Your task to perform on an android device: Search for "bose soundlink mini" on amazon, select the first entry, add it to the cart, then select checkout. Image 0: 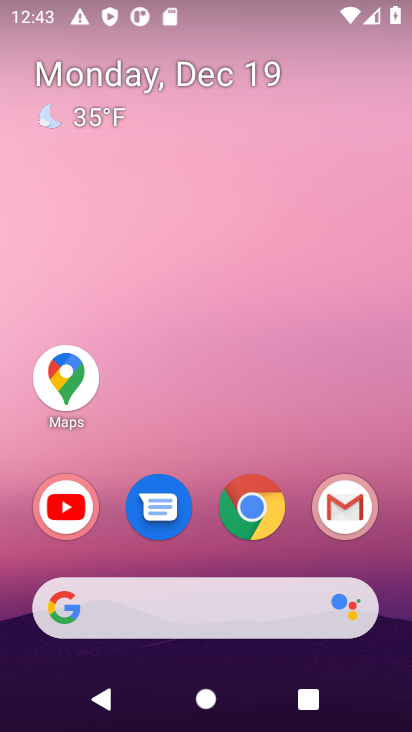
Step 0: click (254, 504)
Your task to perform on an android device: Search for "bose soundlink mini" on amazon, select the first entry, add it to the cart, then select checkout. Image 1: 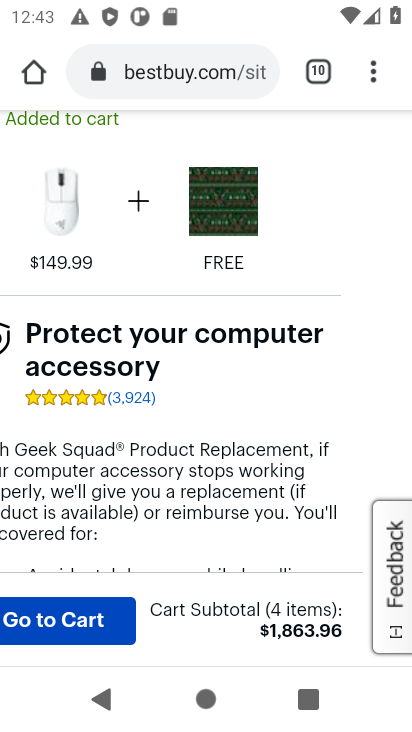
Step 1: click (178, 75)
Your task to perform on an android device: Search for "bose soundlink mini" on amazon, select the first entry, add it to the cart, then select checkout. Image 2: 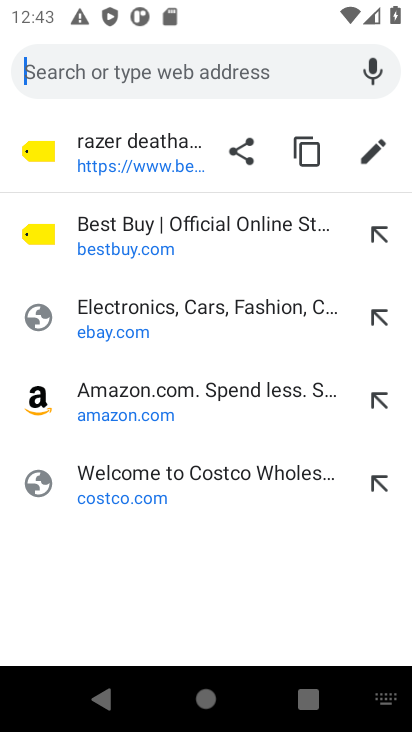
Step 2: click (106, 404)
Your task to perform on an android device: Search for "bose soundlink mini" on amazon, select the first entry, add it to the cart, then select checkout. Image 3: 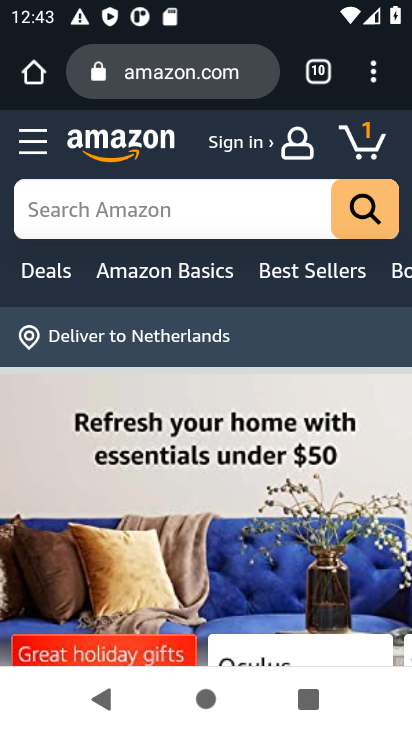
Step 3: click (128, 212)
Your task to perform on an android device: Search for "bose soundlink mini" on amazon, select the first entry, add it to the cart, then select checkout. Image 4: 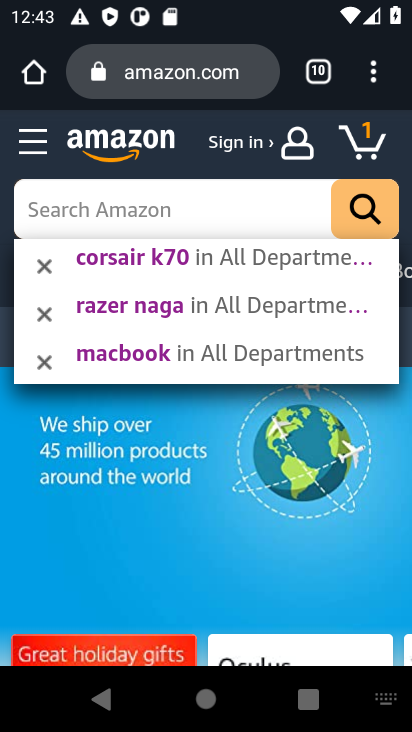
Step 4: type "bose soundlink mini"
Your task to perform on an android device: Search for "bose soundlink mini" on amazon, select the first entry, add it to the cart, then select checkout. Image 5: 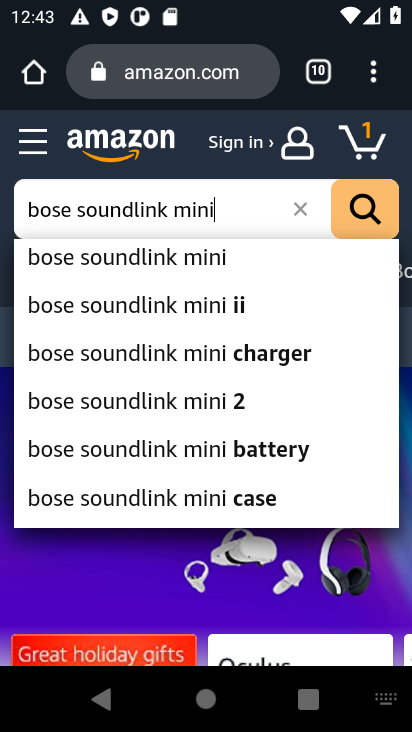
Step 5: click (142, 265)
Your task to perform on an android device: Search for "bose soundlink mini" on amazon, select the first entry, add it to the cart, then select checkout. Image 6: 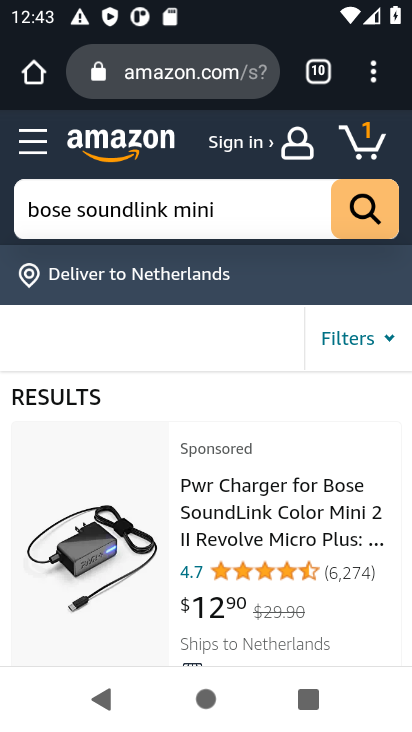
Step 6: click (273, 522)
Your task to perform on an android device: Search for "bose soundlink mini" on amazon, select the first entry, add it to the cart, then select checkout. Image 7: 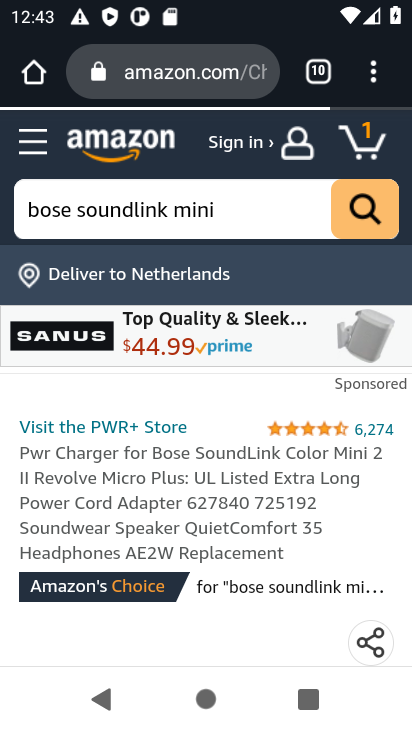
Step 7: drag from (266, 529) to (254, 196)
Your task to perform on an android device: Search for "bose soundlink mini" on amazon, select the first entry, add it to the cart, then select checkout. Image 8: 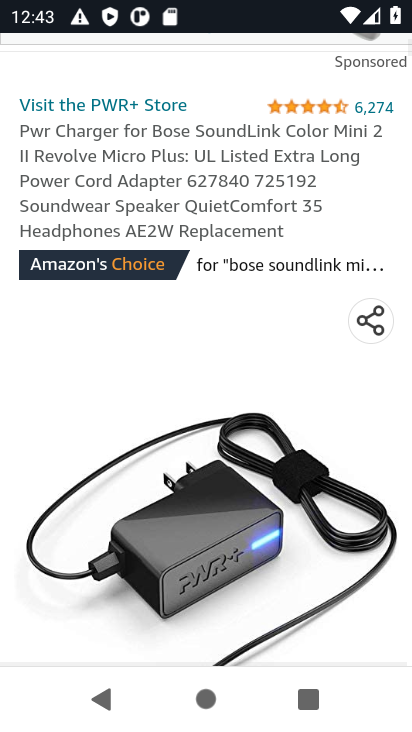
Step 8: drag from (181, 506) to (217, 122)
Your task to perform on an android device: Search for "bose soundlink mini" on amazon, select the first entry, add it to the cart, then select checkout. Image 9: 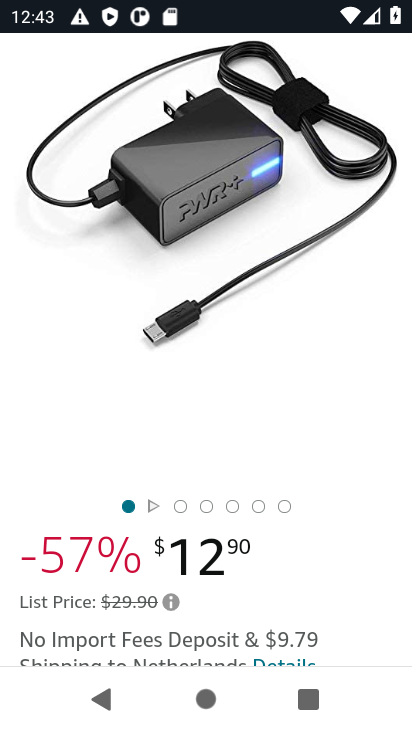
Step 9: drag from (202, 450) to (206, 96)
Your task to perform on an android device: Search for "bose soundlink mini" on amazon, select the first entry, add it to the cart, then select checkout. Image 10: 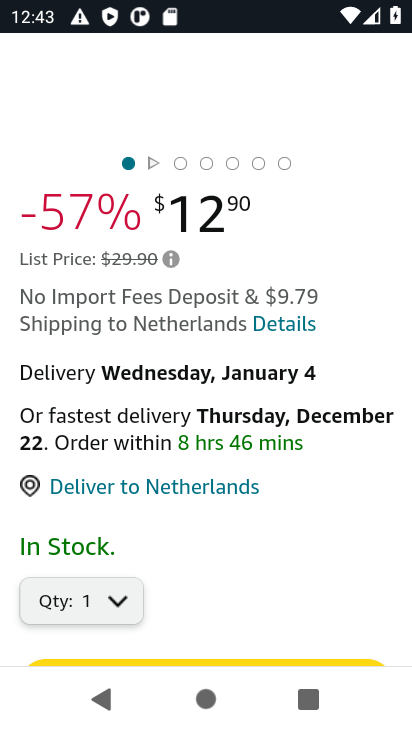
Step 10: drag from (208, 445) to (213, 127)
Your task to perform on an android device: Search for "bose soundlink mini" on amazon, select the first entry, add it to the cart, then select checkout. Image 11: 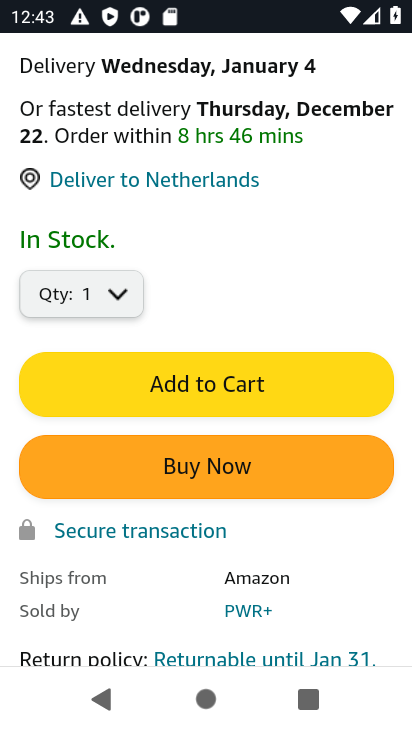
Step 11: click (187, 389)
Your task to perform on an android device: Search for "bose soundlink mini" on amazon, select the first entry, add it to the cart, then select checkout. Image 12: 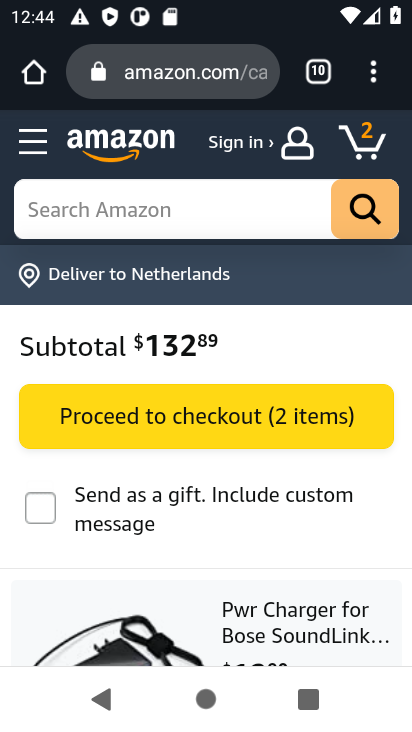
Step 12: click (183, 417)
Your task to perform on an android device: Search for "bose soundlink mini" on amazon, select the first entry, add it to the cart, then select checkout. Image 13: 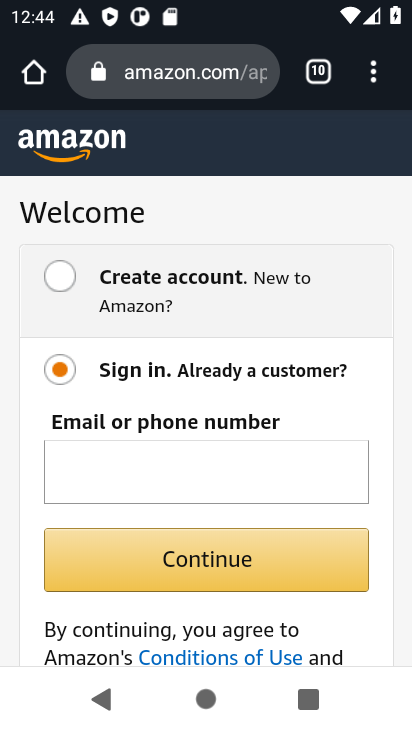
Step 13: task complete